Your task to perform on an android device: turn smart compose on in the gmail app Image 0: 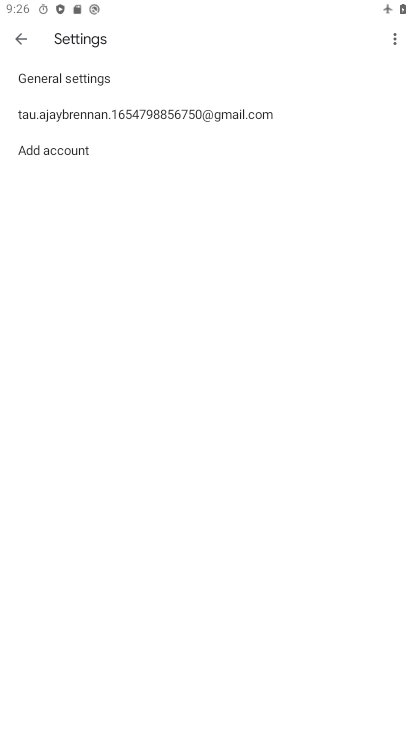
Step 0: press home button
Your task to perform on an android device: turn smart compose on in the gmail app Image 1: 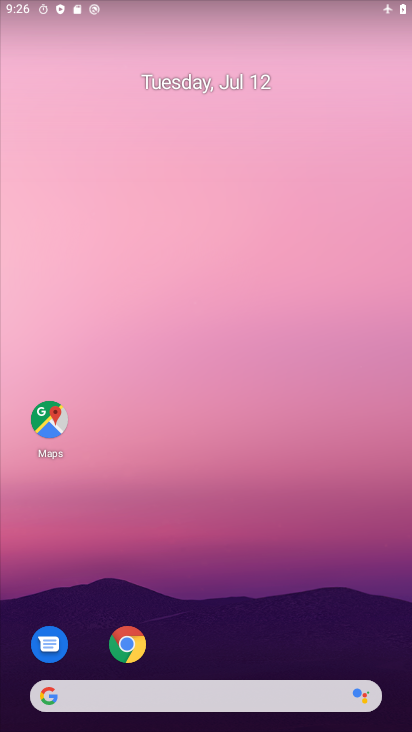
Step 1: drag from (207, 640) to (181, 189)
Your task to perform on an android device: turn smart compose on in the gmail app Image 2: 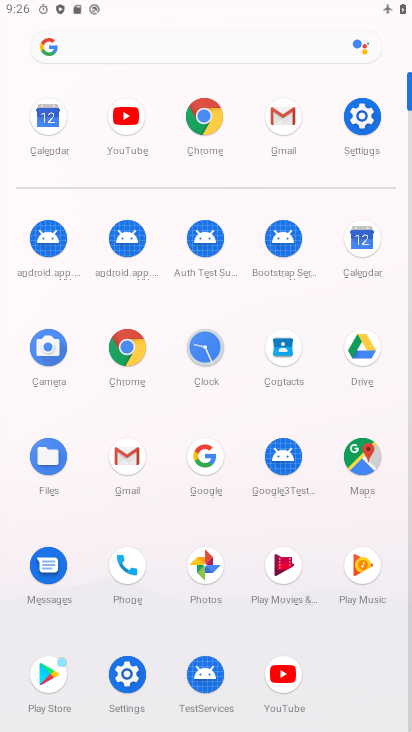
Step 2: click (298, 129)
Your task to perform on an android device: turn smart compose on in the gmail app Image 3: 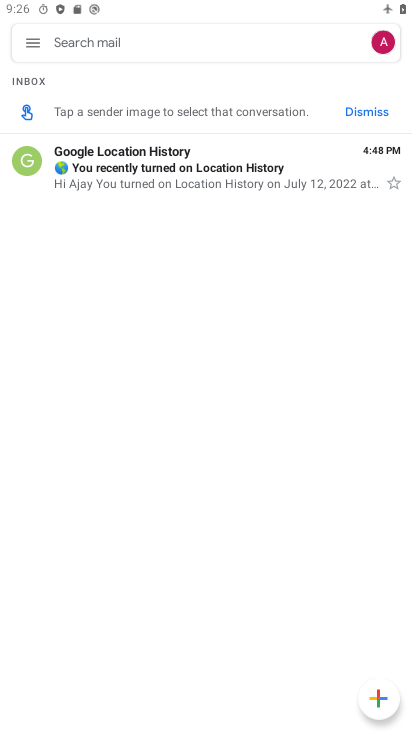
Step 3: click (32, 44)
Your task to perform on an android device: turn smart compose on in the gmail app Image 4: 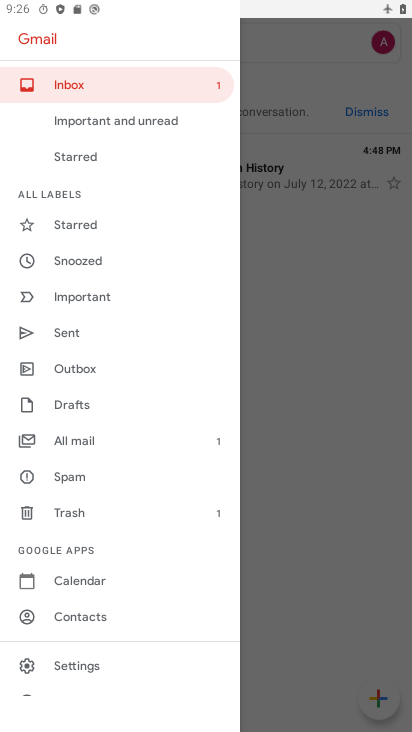
Step 4: click (91, 668)
Your task to perform on an android device: turn smart compose on in the gmail app Image 5: 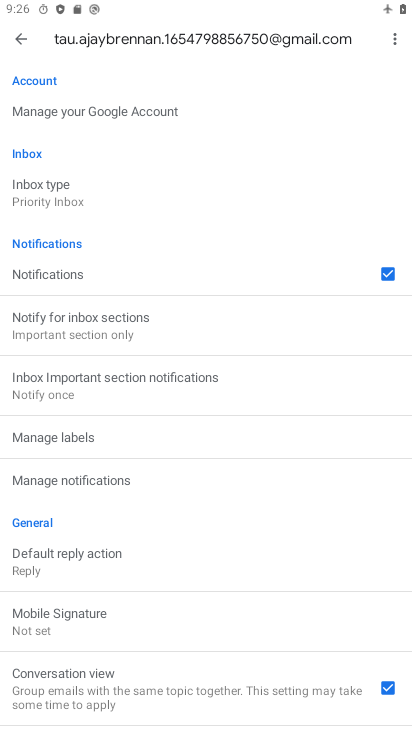
Step 5: task complete